Your task to perform on an android device: turn on translation in the chrome app Image 0: 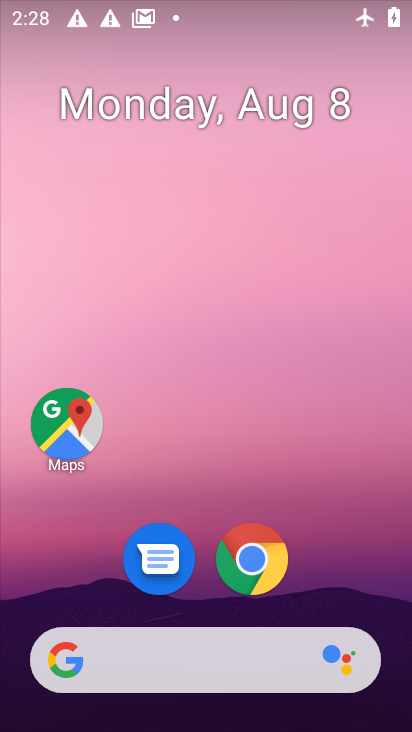
Step 0: click (252, 560)
Your task to perform on an android device: turn on translation in the chrome app Image 1: 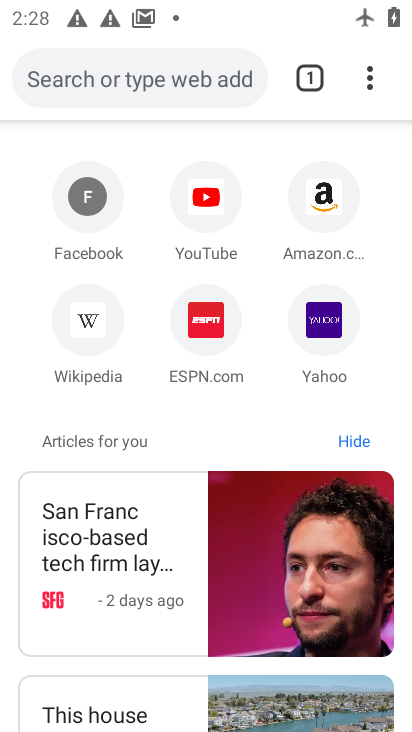
Step 1: click (369, 79)
Your task to perform on an android device: turn on translation in the chrome app Image 2: 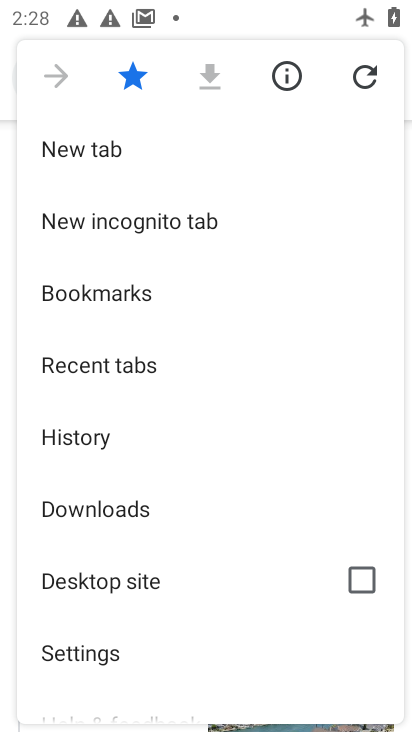
Step 2: drag from (125, 537) to (159, 425)
Your task to perform on an android device: turn on translation in the chrome app Image 3: 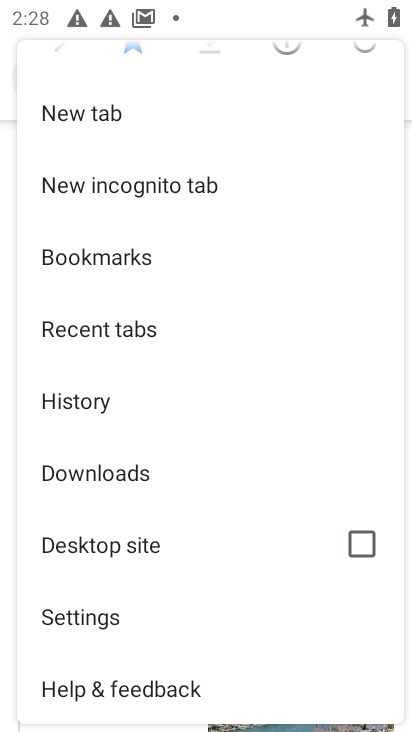
Step 3: click (99, 620)
Your task to perform on an android device: turn on translation in the chrome app Image 4: 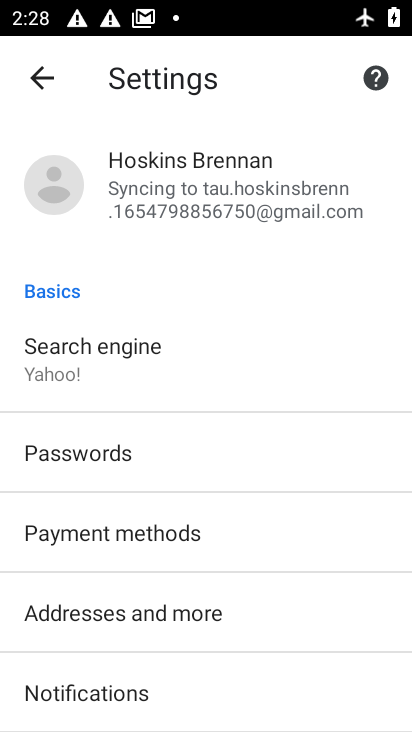
Step 4: drag from (142, 581) to (224, 469)
Your task to perform on an android device: turn on translation in the chrome app Image 5: 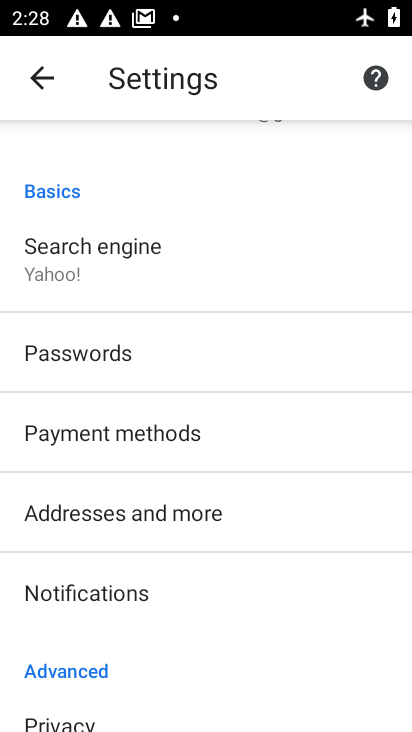
Step 5: drag from (197, 612) to (252, 478)
Your task to perform on an android device: turn on translation in the chrome app Image 6: 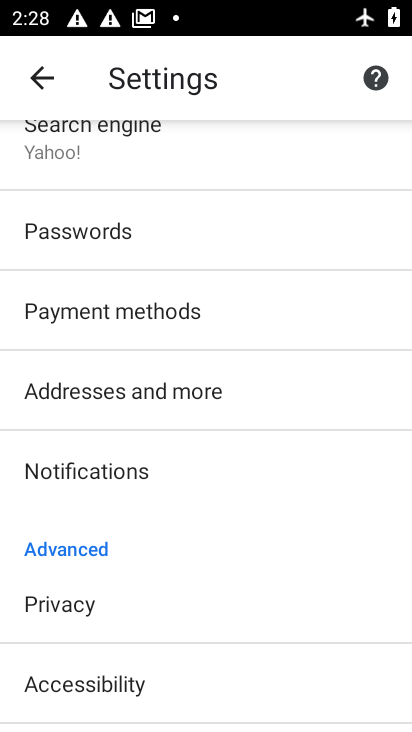
Step 6: drag from (193, 616) to (278, 472)
Your task to perform on an android device: turn on translation in the chrome app Image 7: 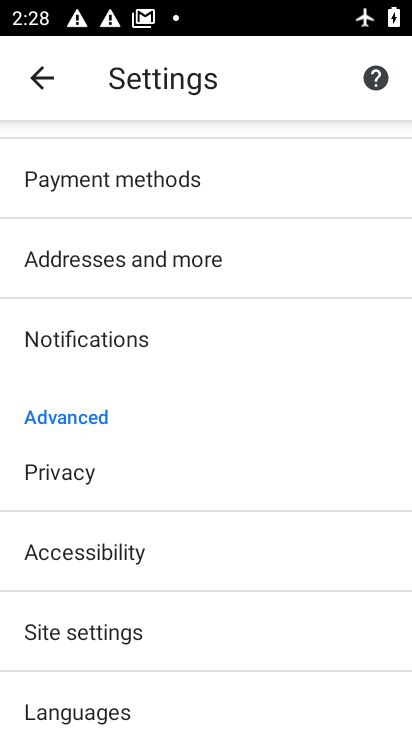
Step 7: drag from (202, 638) to (269, 493)
Your task to perform on an android device: turn on translation in the chrome app Image 8: 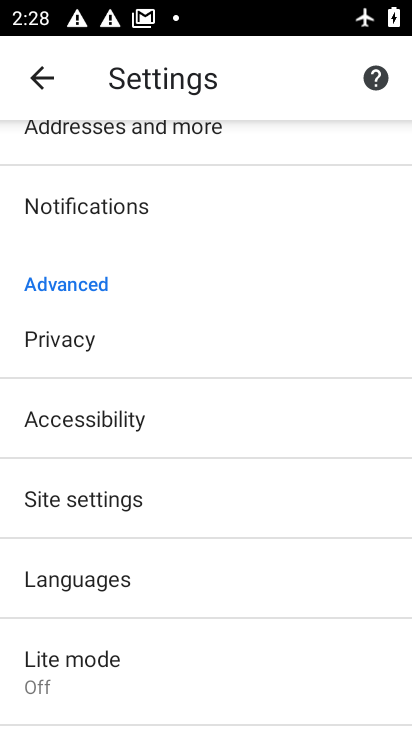
Step 8: click (122, 587)
Your task to perform on an android device: turn on translation in the chrome app Image 9: 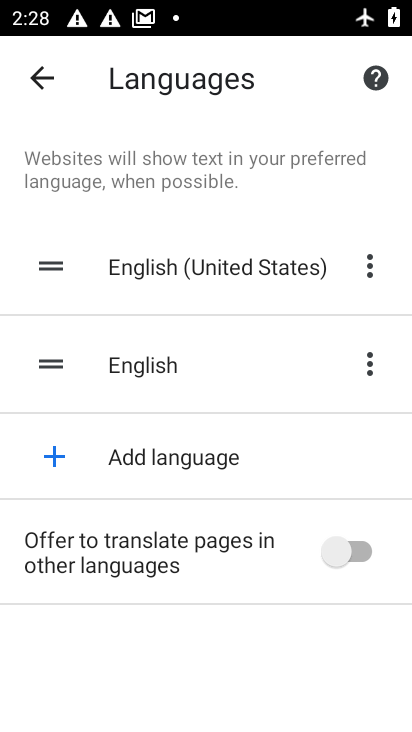
Step 9: click (345, 550)
Your task to perform on an android device: turn on translation in the chrome app Image 10: 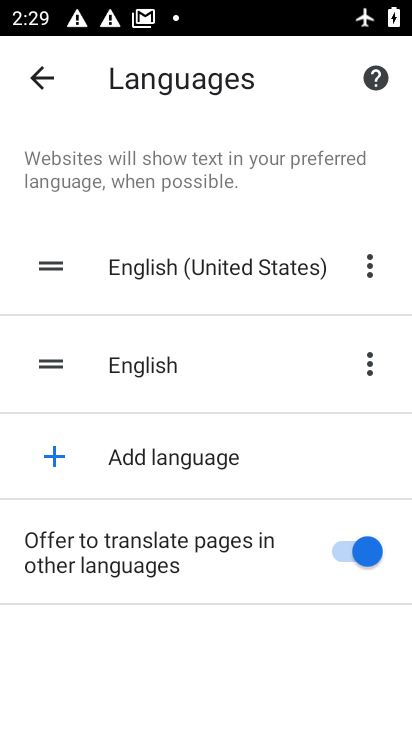
Step 10: task complete